Your task to perform on an android device: Open network settings Image 0: 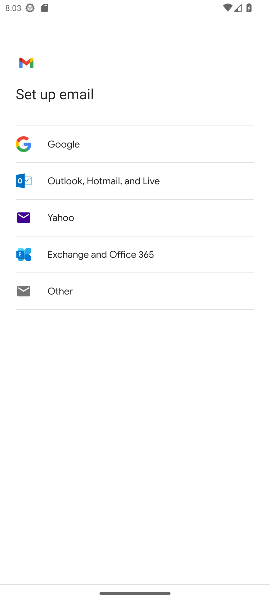
Step 0: press home button
Your task to perform on an android device: Open network settings Image 1: 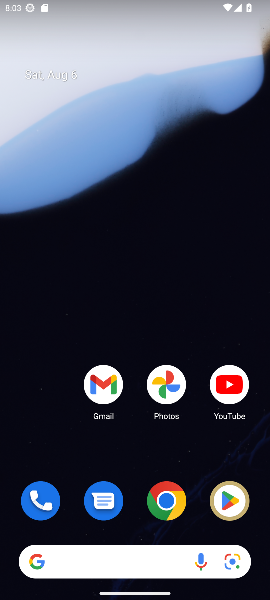
Step 1: drag from (14, 563) to (143, 251)
Your task to perform on an android device: Open network settings Image 2: 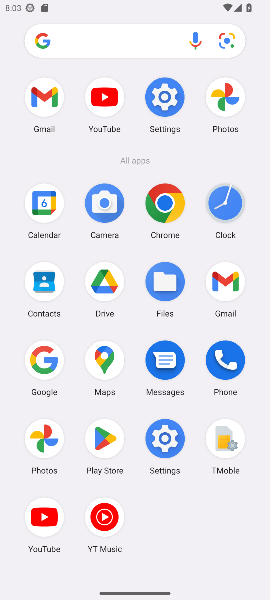
Step 2: click (158, 453)
Your task to perform on an android device: Open network settings Image 3: 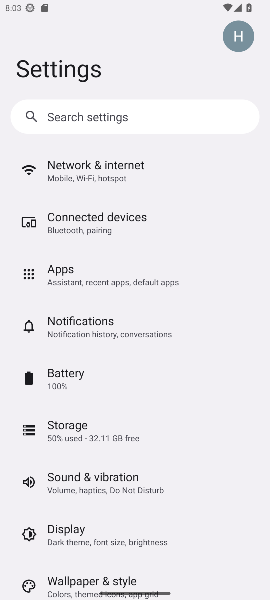
Step 3: click (92, 170)
Your task to perform on an android device: Open network settings Image 4: 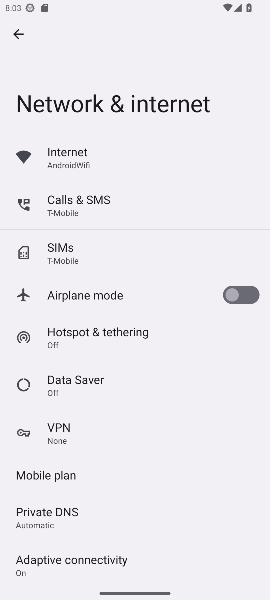
Step 4: task complete